Your task to perform on an android device: create a new album in the google photos Image 0: 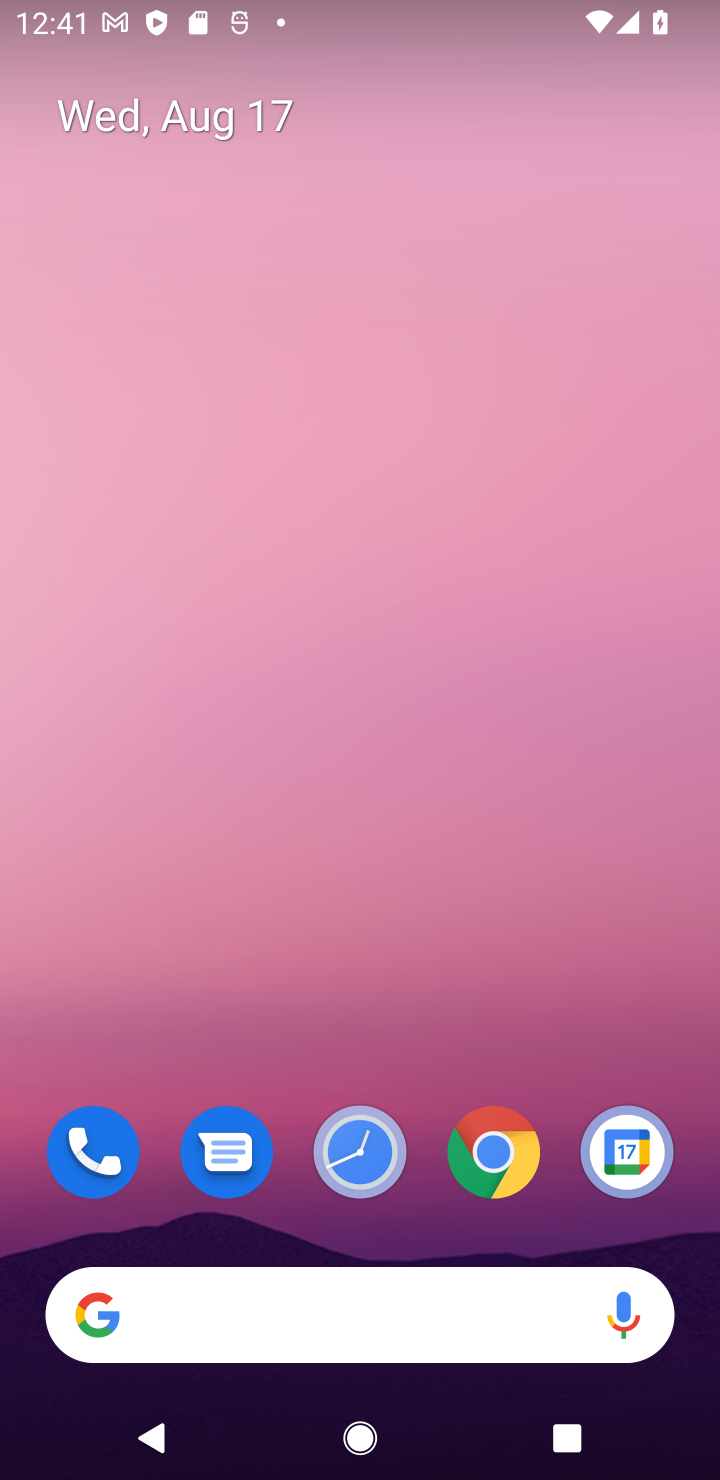
Step 0: drag from (655, 992) to (343, 25)
Your task to perform on an android device: create a new album in the google photos Image 1: 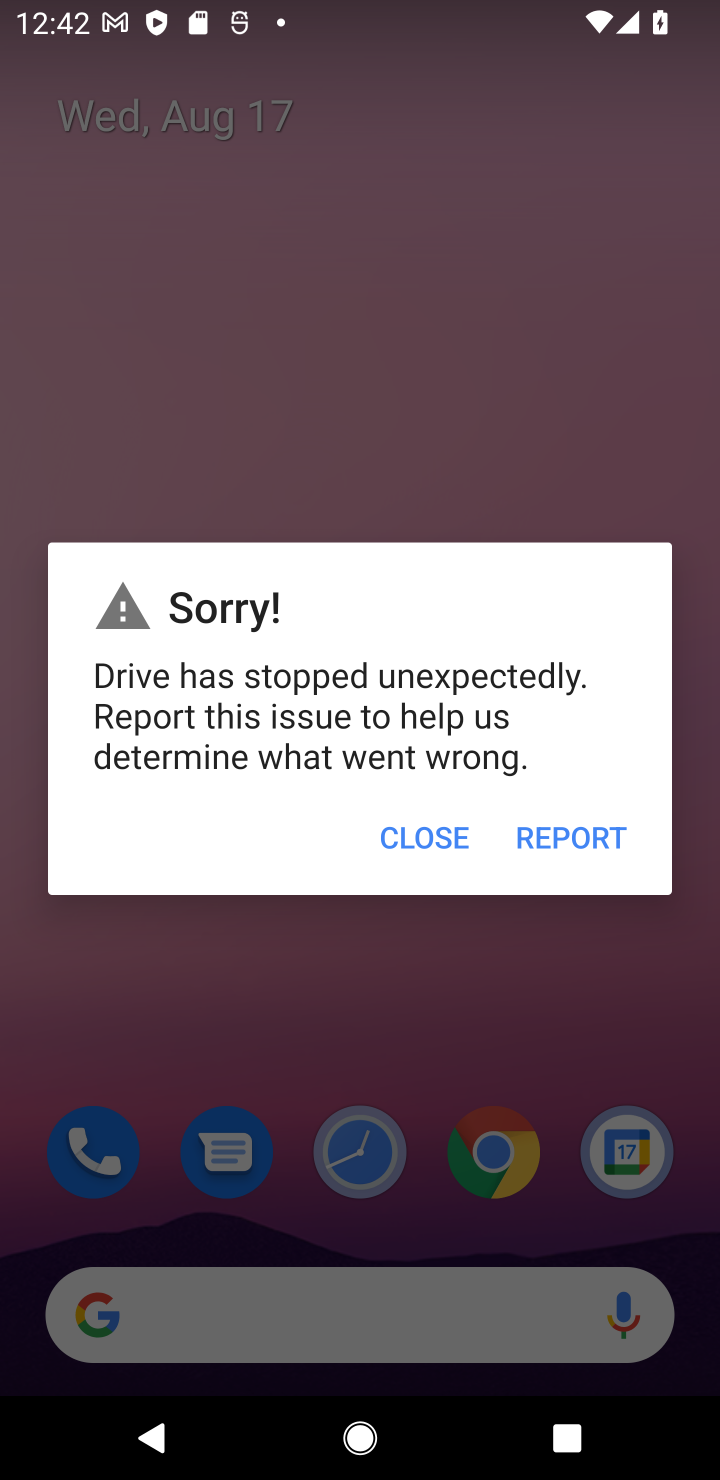
Step 1: click (441, 836)
Your task to perform on an android device: create a new album in the google photos Image 2: 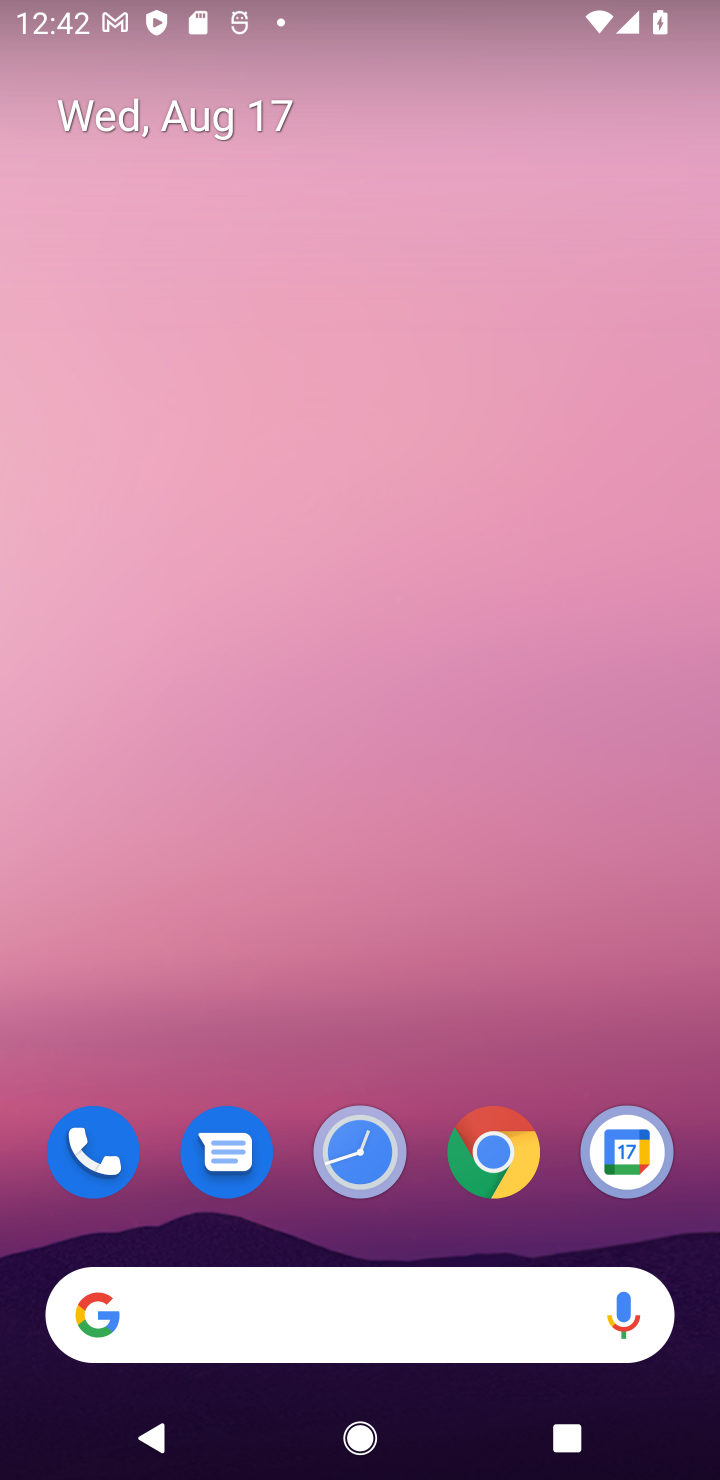
Step 2: drag from (569, 912) to (367, 25)
Your task to perform on an android device: create a new album in the google photos Image 3: 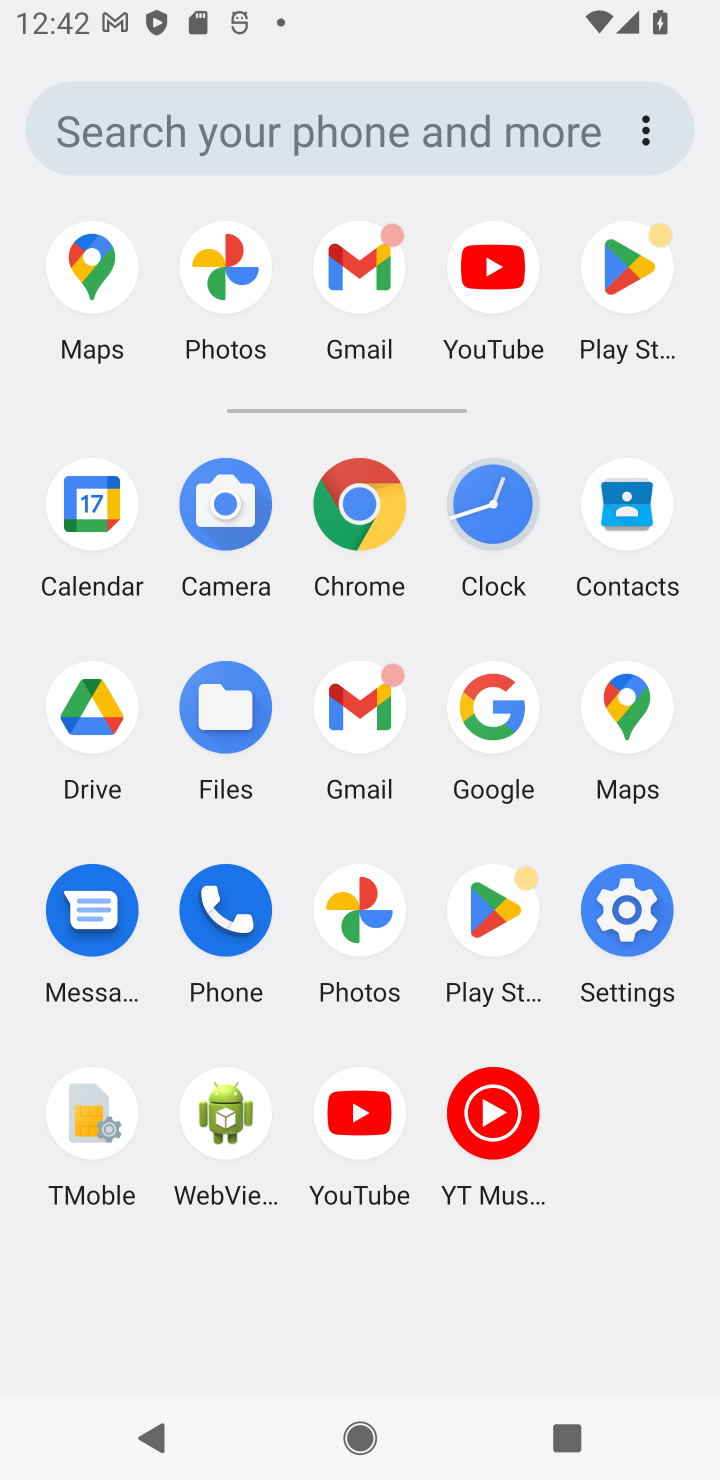
Step 3: click (372, 920)
Your task to perform on an android device: create a new album in the google photos Image 4: 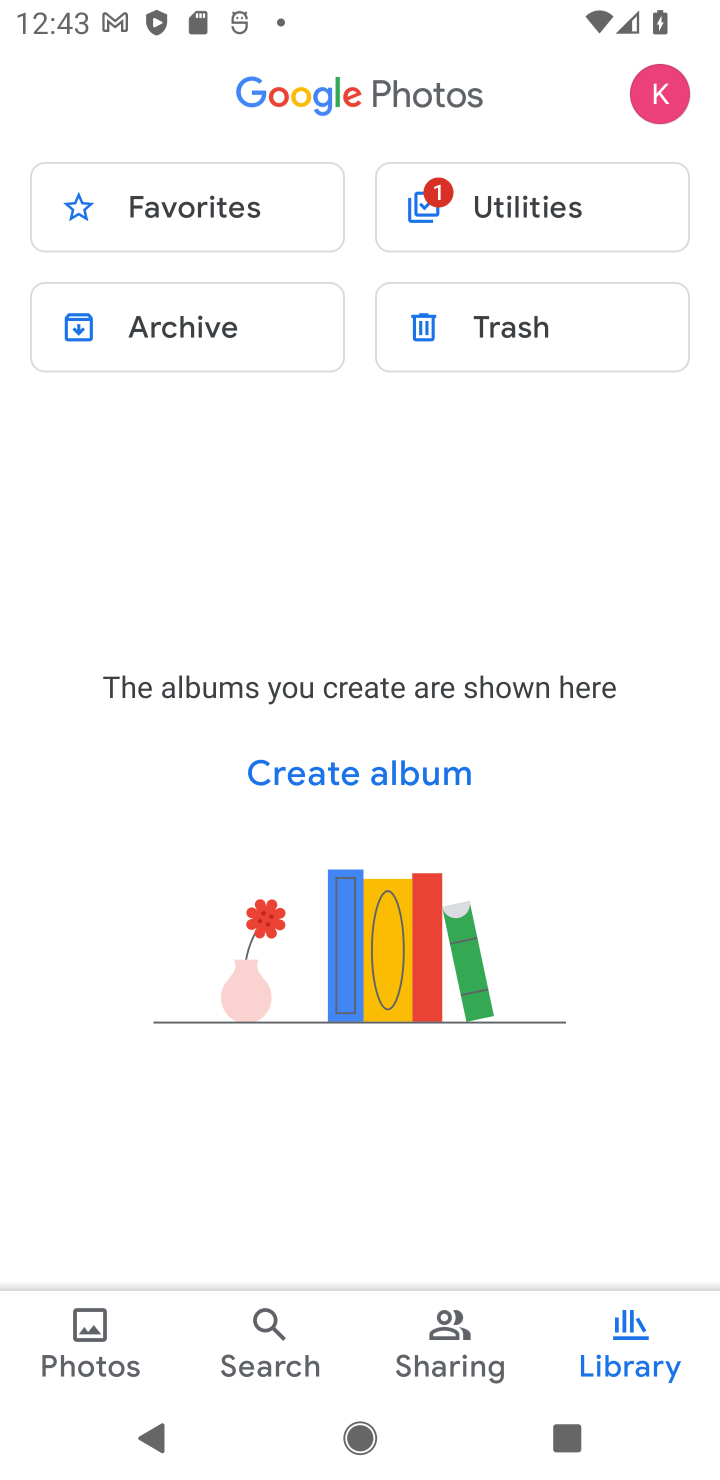
Step 4: task complete